Your task to perform on an android device: toggle sleep mode Image 0: 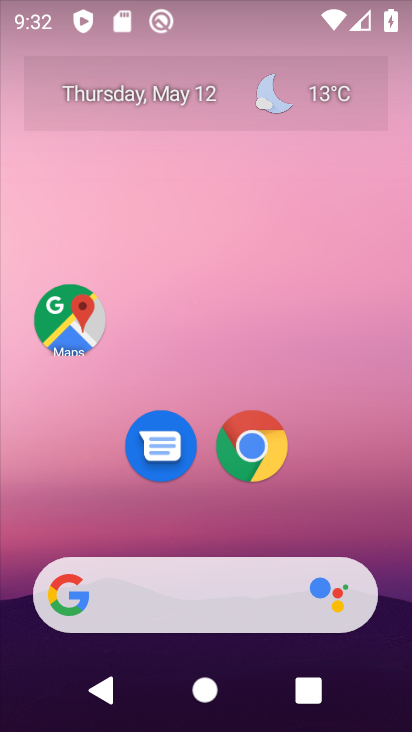
Step 0: drag from (202, 574) to (213, 96)
Your task to perform on an android device: toggle sleep mode Image 1: 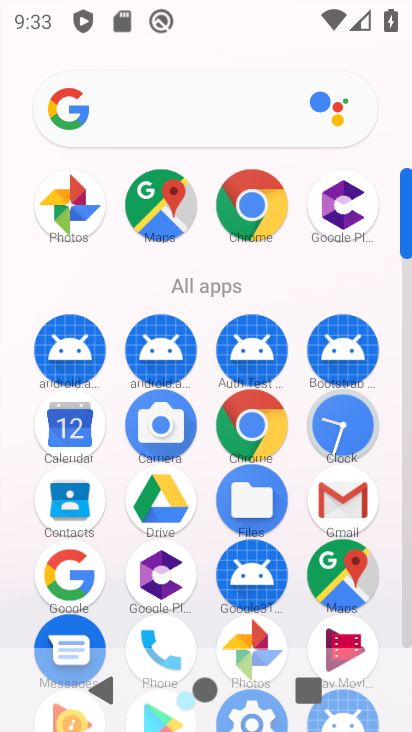
Step 1: drag from (203, 618) to (186, 136)
Your task to perform on an android device: toggle sleep mode Image 2: 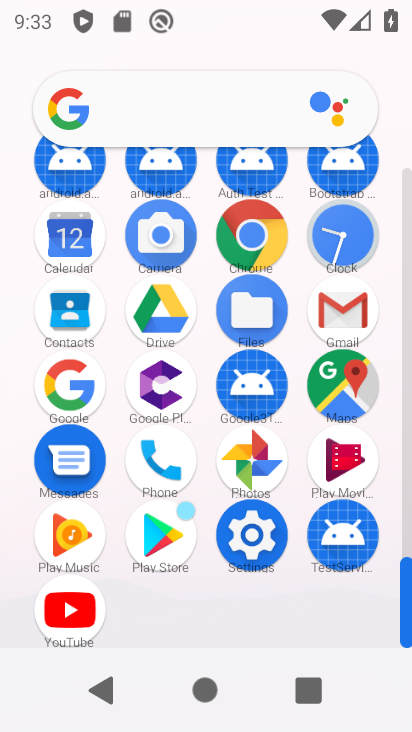
Step 2: click (260, 536)
Your task to perform on an android device: toggle sleep mode Image 3: 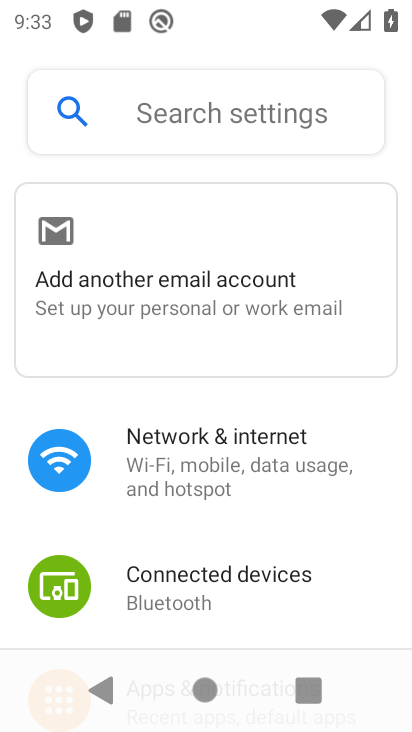
Step 3: task complete